Your task to perform on an android device: Open display settings Image 0: 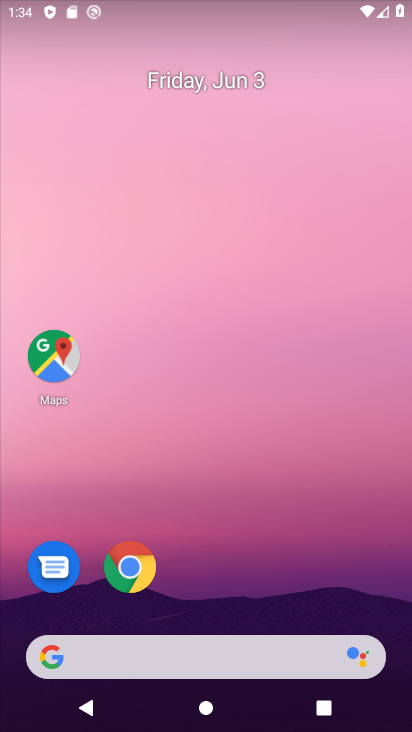
Step 0: drag from (216, 613) to (288, 67)
Your task to perform on an android device: Open display settings Image 1: 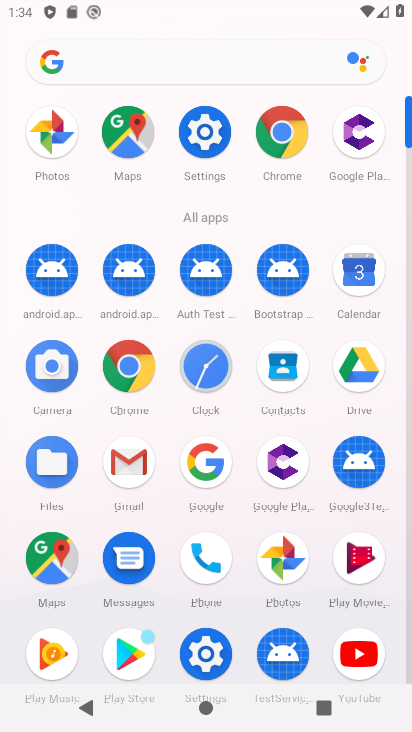
Step 1: click (211, 140)
Your task to perform on an android device: Open display settings Image 2: 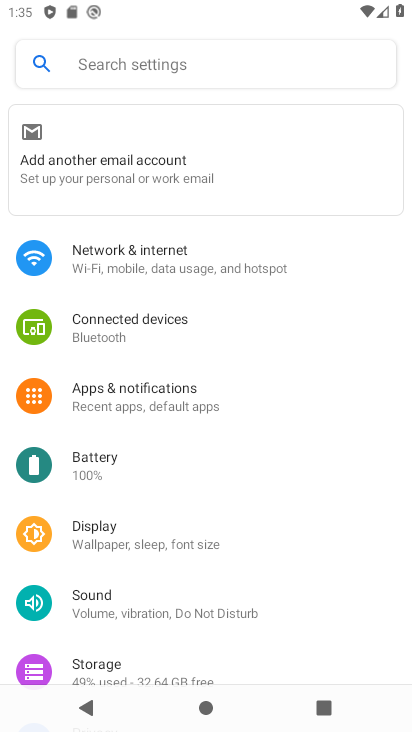
Step 2: click (134, 538)
Your task to perform on an android device: Open display settings Image 3: 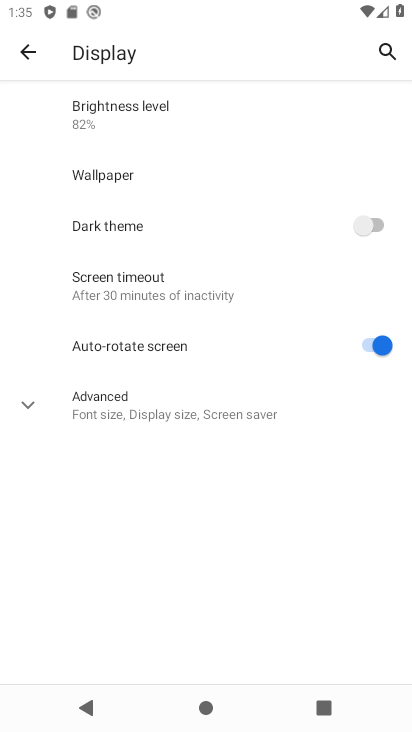
Step 3: task complete